Your task to perform on an android device: Search for vegetarian restaurants on Maps Image 0: 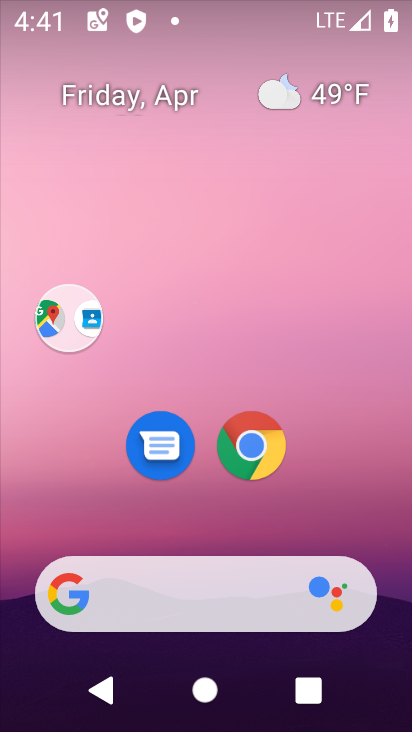
Step 0: drag from (366, 61) to (324, 23)
Your task to perform on an android device: Search for vegetarian restaurants on Maps Image 1: 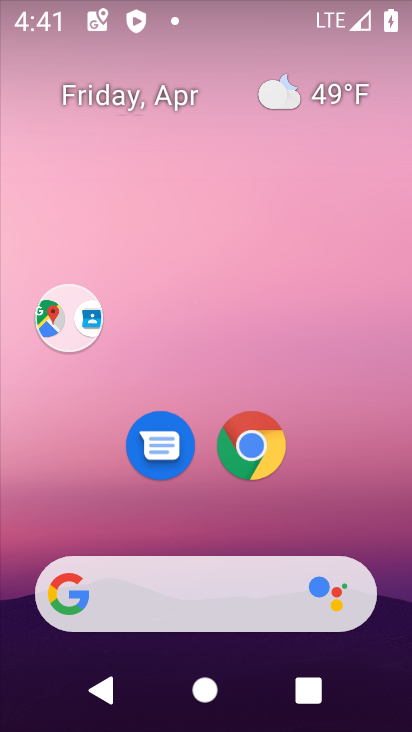
Step 1: drag from (306, 498) to (275, 106)
Your task to perform on an android device: Search for vegetarian restaurants on Maps Image 2: 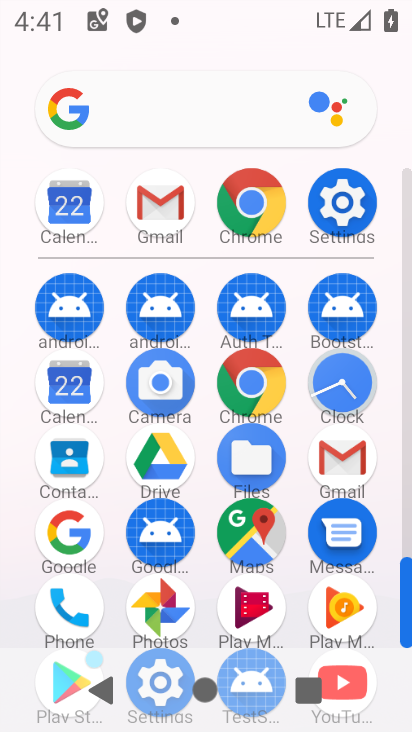
Step 2: click (264, 533)
Your task to perform on an android device: Search for vegetarian restaurants on Maps Image 3: 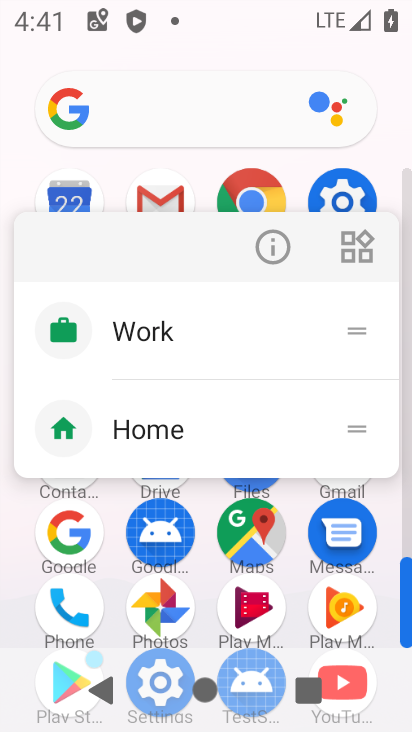
Step 3: click (239, 535)
Your task to perform on an android device: Search for vegetarian restaurants on Maps Image 4: 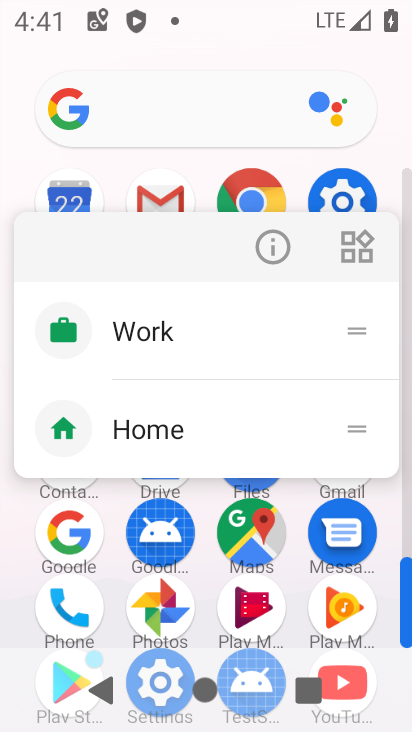
Step 4: click (247, 543)
Your task to perform on an android device: Search for vegetarian restaurants on Maps Image 5: 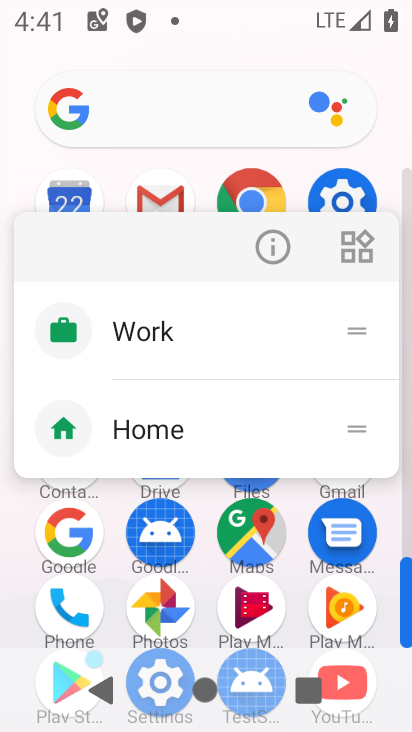
Step 5: click (247, 543)
Your task to perform on an android device: Search for vegetarian restaurants on Maps Image 6: 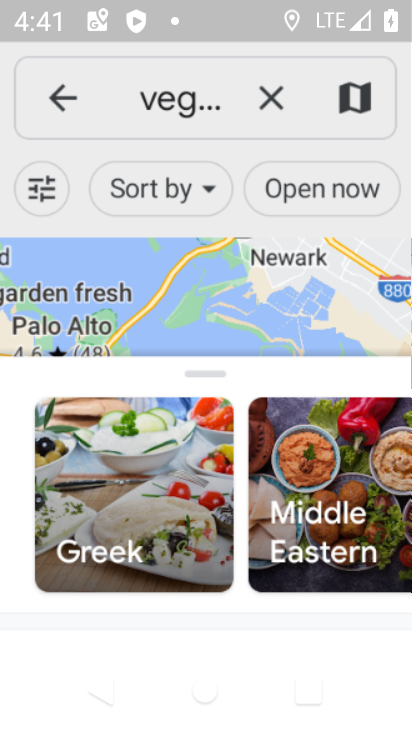
Step 6: task complete